Your task to perform on an android device: When is my next meeting? Image 0: 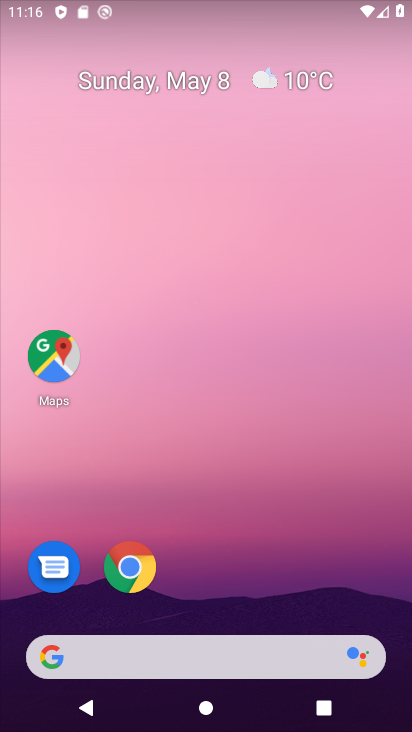
Step 0: drag from (242, 523) to (228, 98)
Your task to perform on an android device: When is my next meeting? Image 1: 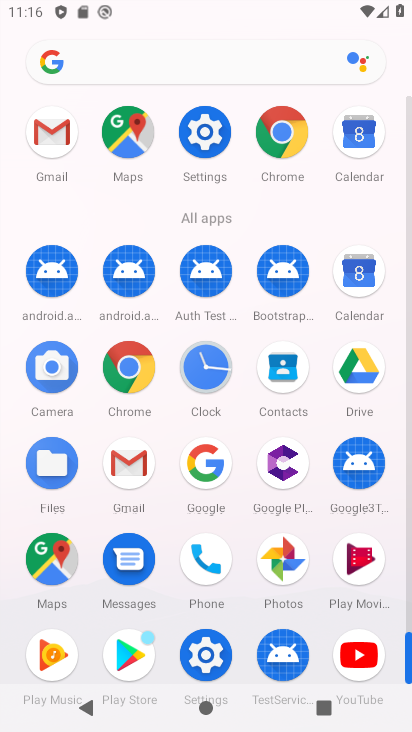
Step 1: click (383, 287)
Your task to perform on an android device: When is my next meeting? Image 2: 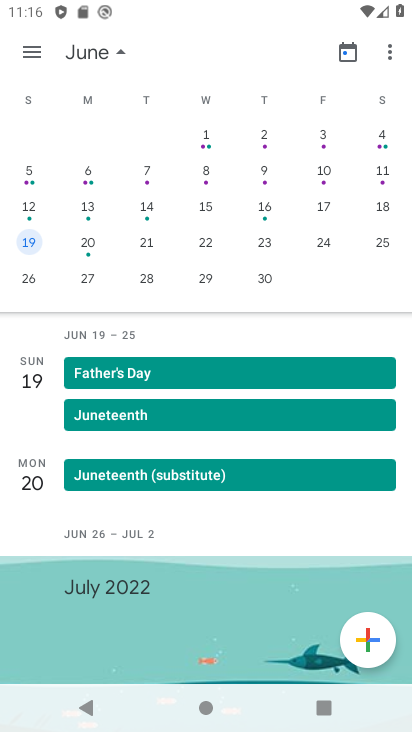
Step 2: drag from (206, 198) to (408, 219)
Your task to perform on an android device: When is my next meeting? Image 3: 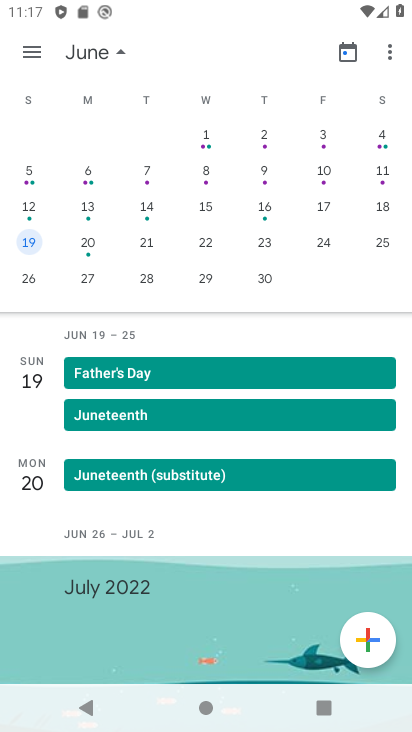
Step 3: drag from (91, 192) to (410, 241)
Your task to perform on an android device: When is my next meeting? Image 4: 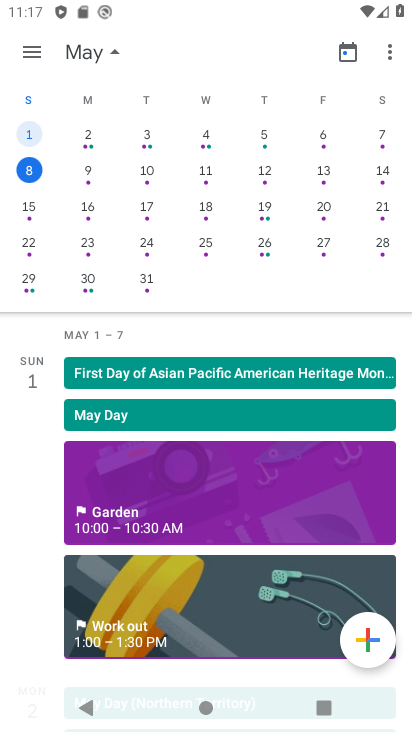
Step 4: drag from (290, 241) to (375, 272)
Your task to perform on an android device: When is my next meeting? Image 5: 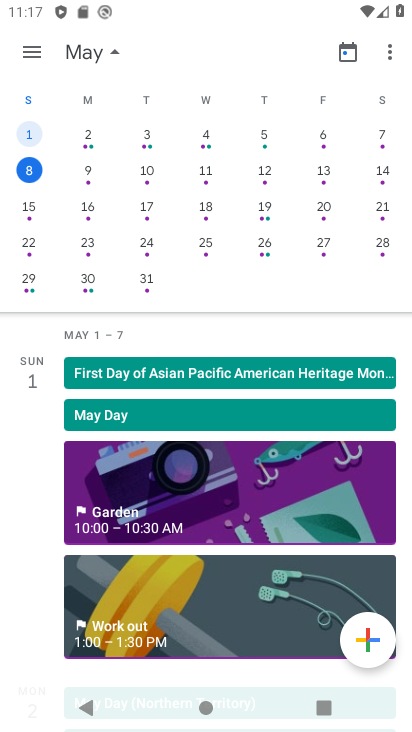
Step 5: drag from (222, 498) to (234, 384)
Your task to perform on an android device: When is my next meeting? Image 6: 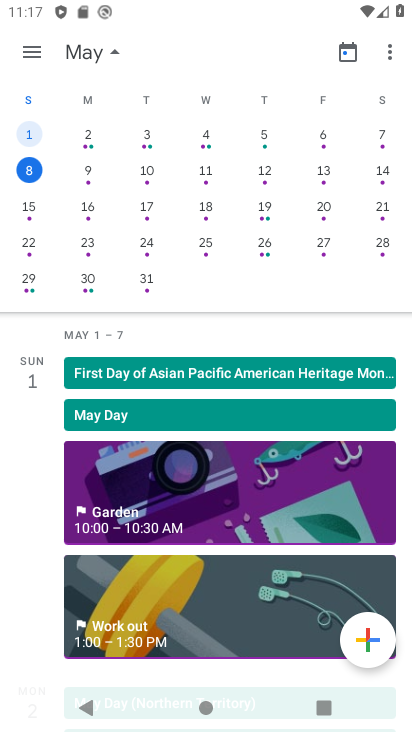
Step 6: drag from (231, 400) to (197, 544)
Your task to perform on an android device: When is my next meeting? Image 7: 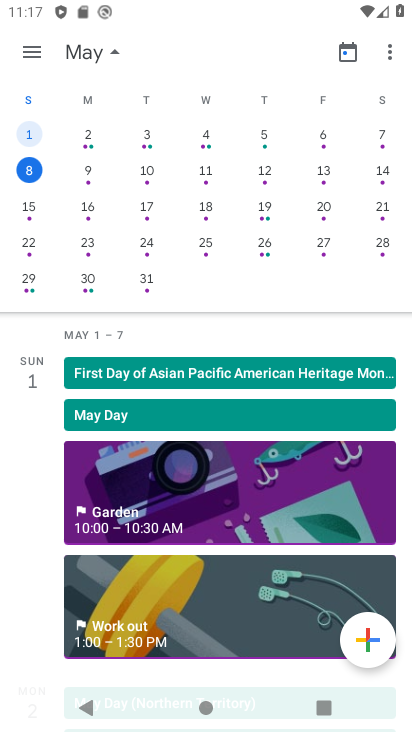
Step 7: click (31, 166)
Your task to perform on an android device: When is my next meeting? Image 8: 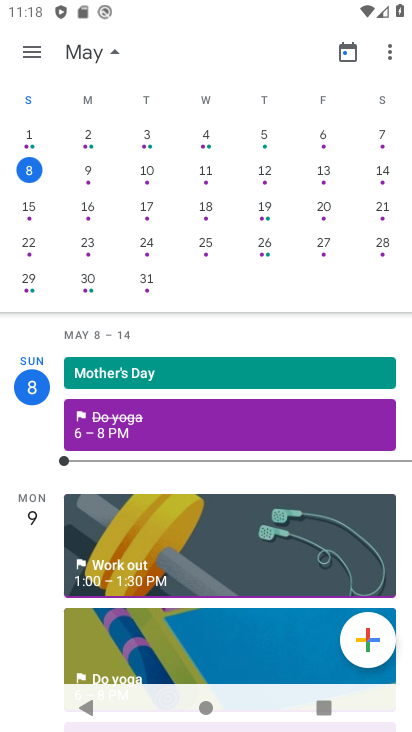
Step 8: task complete